Your task to perform on an android device: What's on my calendar tomorrow? Image 0: 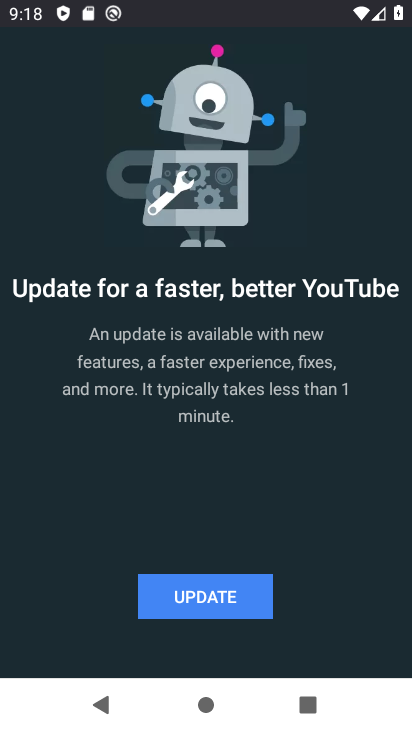
Step 0: press home button
Your task to perform on an android device: What's on my calendar tomorrow? Image 1: 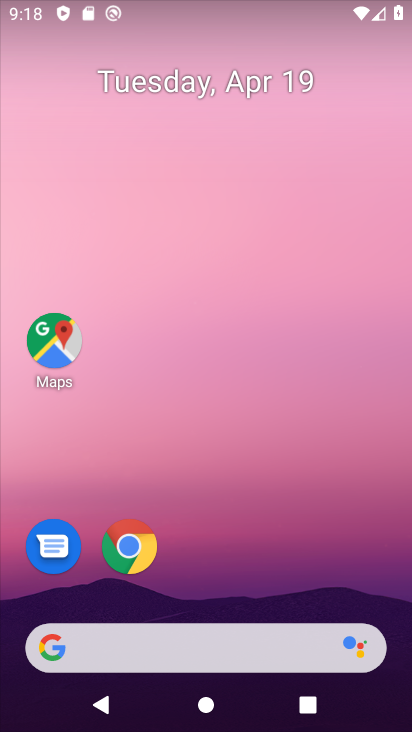
Step 1: drag from (203, 727) to (202, 89)
Your task to perform on an android device: What's on my calendar tomorrow? Image 2: 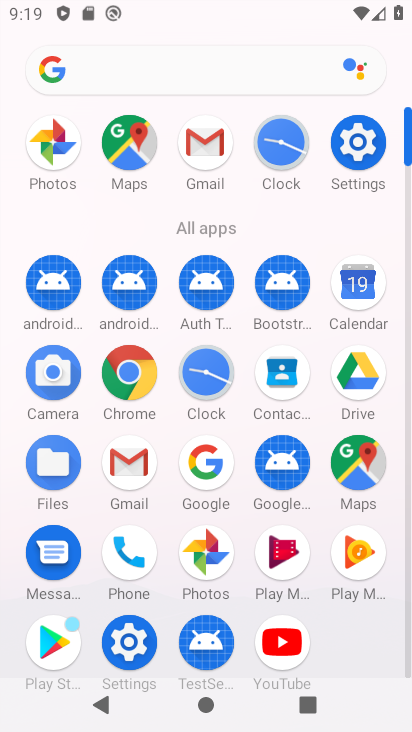
Step 2: click (359, 290)
Your task to perform on an android device: What's on my calendar tomorrow? Image 3: 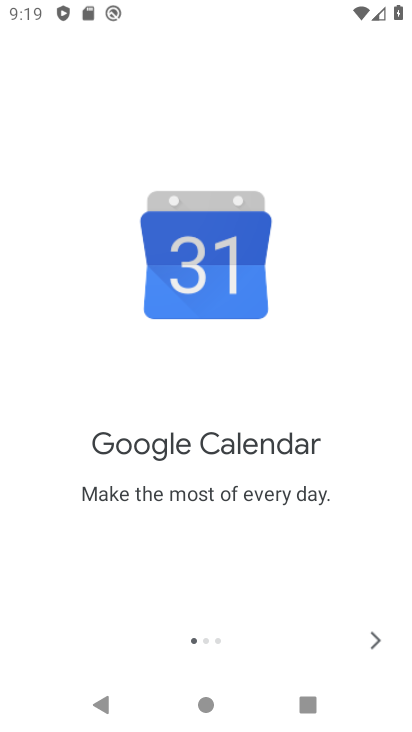
Step 3: click (379, 641)
Your task to perform on an android device: What's on my calendar tomorrow? Image 4: 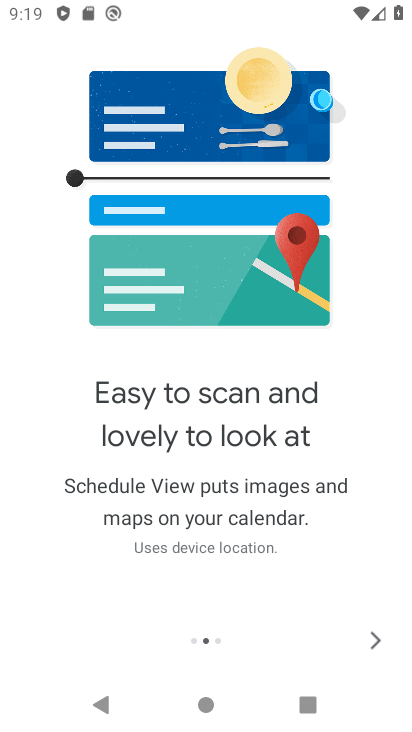
Step 4: click (379, 641)
Your task to perform on an android device: What's on my calendar tomorrow? Image 5: 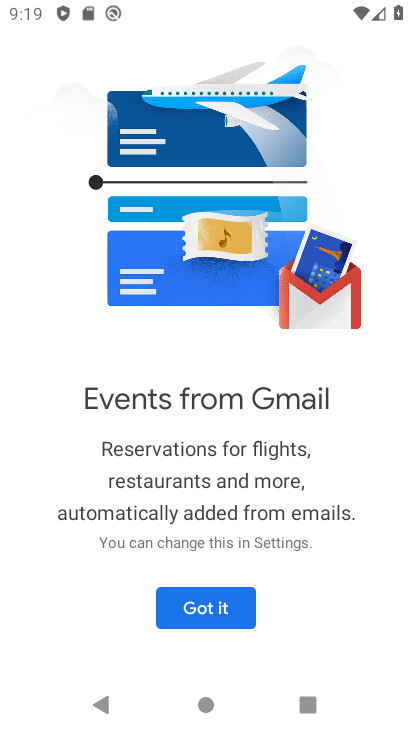
Step 5: click (195, 604)
Your task to perform on an android device: What's on my calendar tomorrow? Image 6: 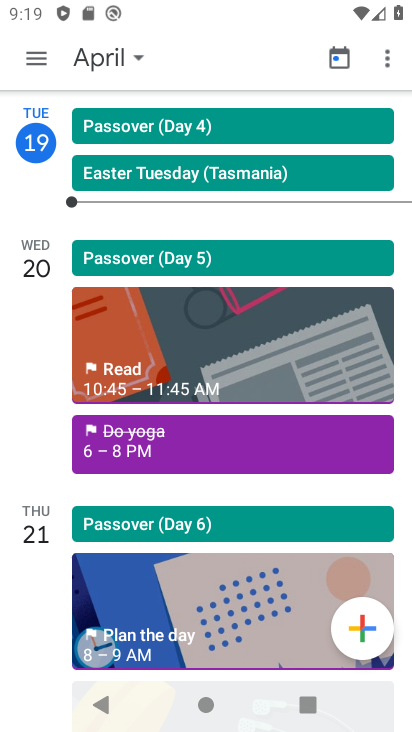
Step 6: click (106, 50)
Your task to perform on an android device: What's on my calendar tomorrow? Image 7: 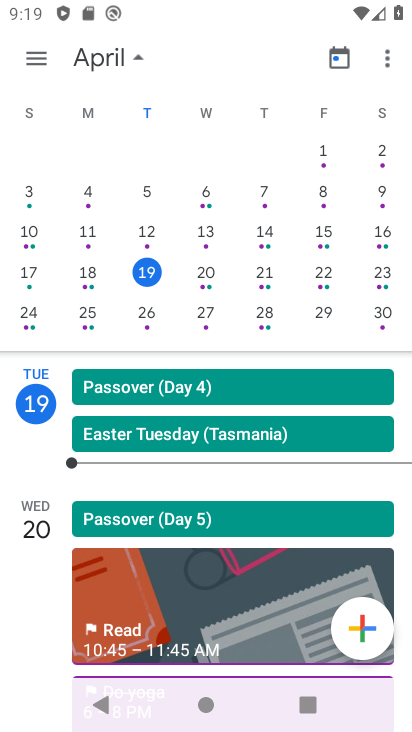
Step 7: click (206, 272)
Your task to perform on an android device: What's on my calendar tomorrow? Image 8: 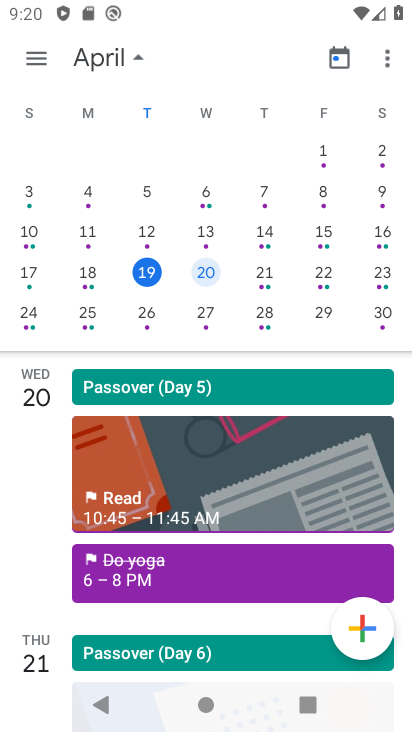
Step 8: task complete